Your task to perform on an android device: What's the weather? Image 0: 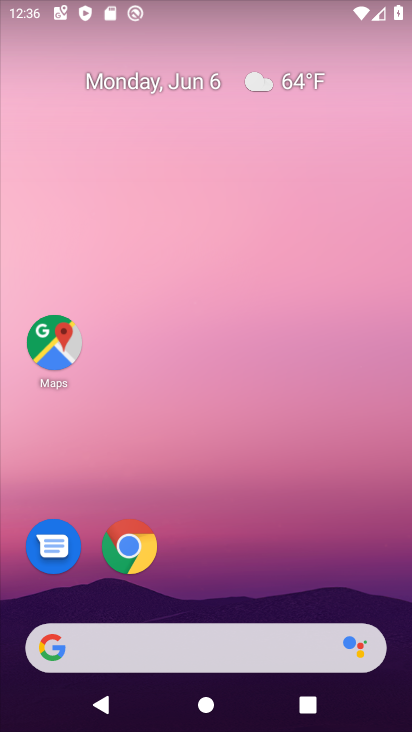
Step 0: click (127, 541)
Your task to perform on an android device: What's the weather? Image 1: 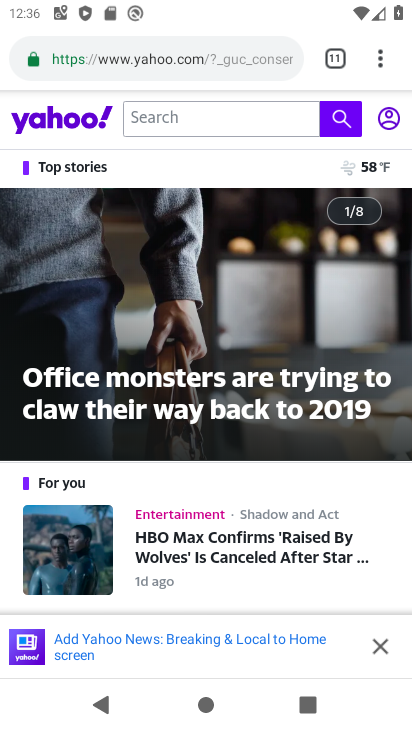
Step 1: click (369, 53)
Your task to perform on an android device: What's the weather? Image 2: 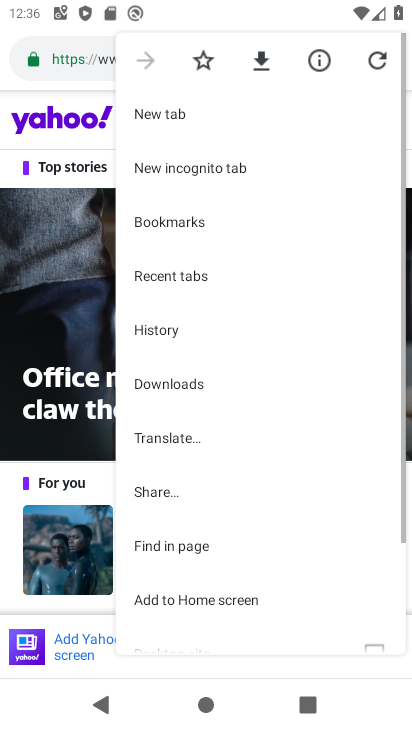
Step 2: click (209, 104)
Your task to perform on an android device: What's the weather? Image 3: 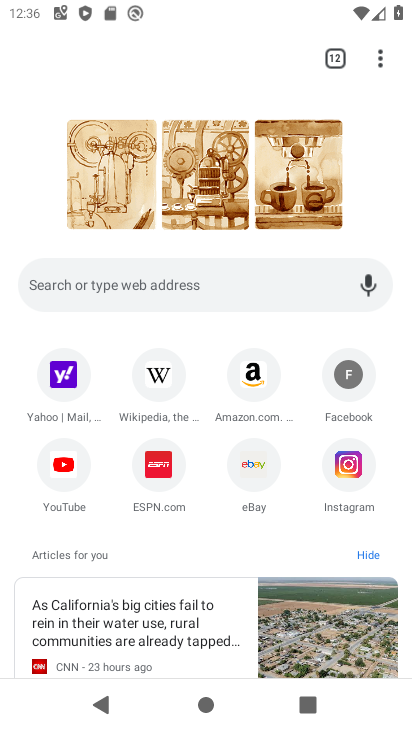
Step 3: click (168, 275)
Your task to perform on an android device: What's the weather? Image 4: 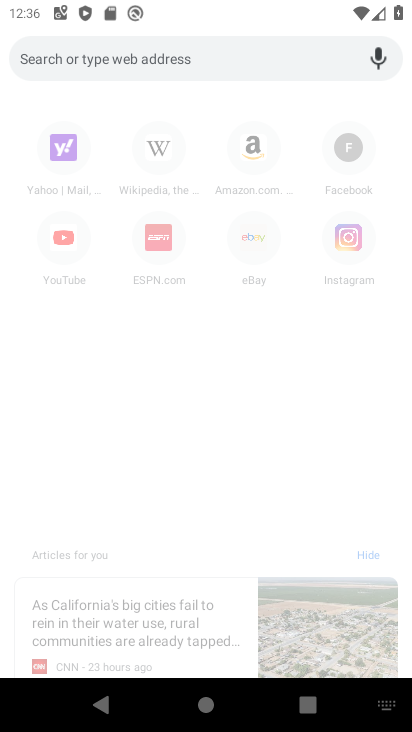
Step 4: type "What's the weather?"
Your task to perform on an android device: What's the weather? Image 5: 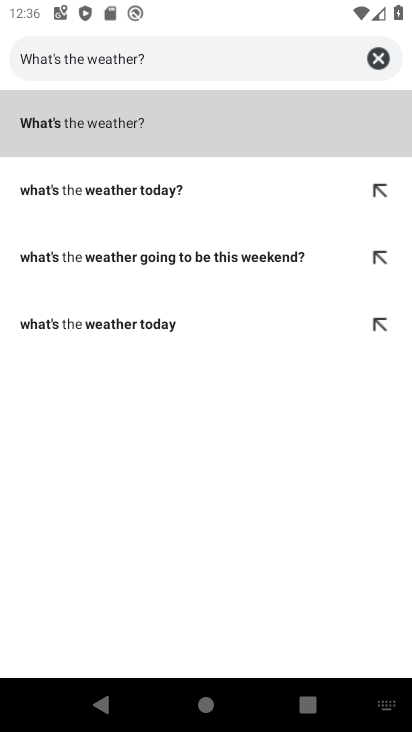
Step 5: click (79, 122)
Your task to perform on an android device: What's the weather? Image 6: 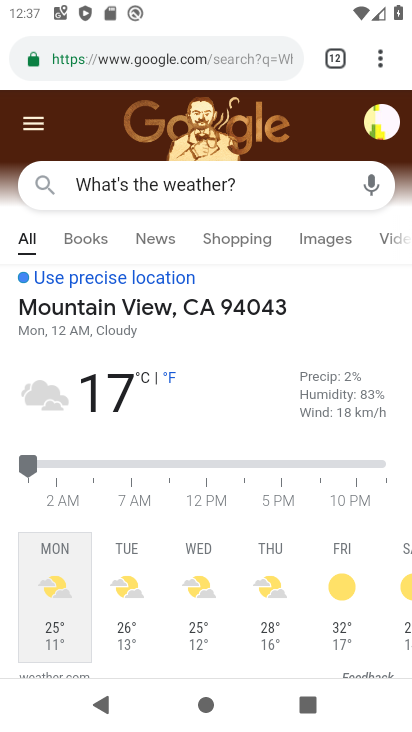
Step 6: task complete